Your task to perform on an android device: Open wifi settings Image 0: 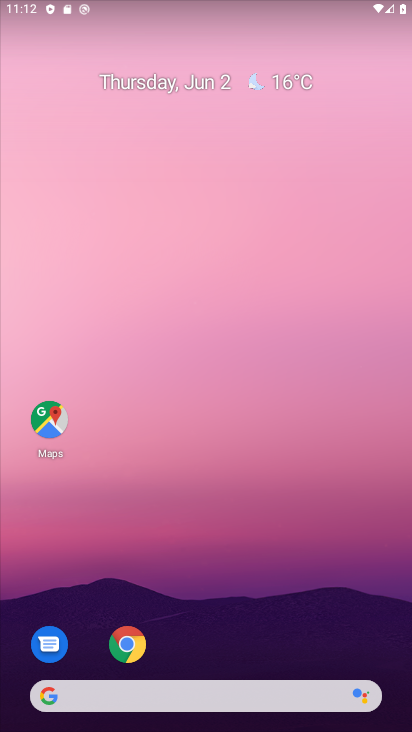
Step 0: drag from (231, 635) to (261, 77)
Your task to perform on an android device: Open wifi settings Image 1: 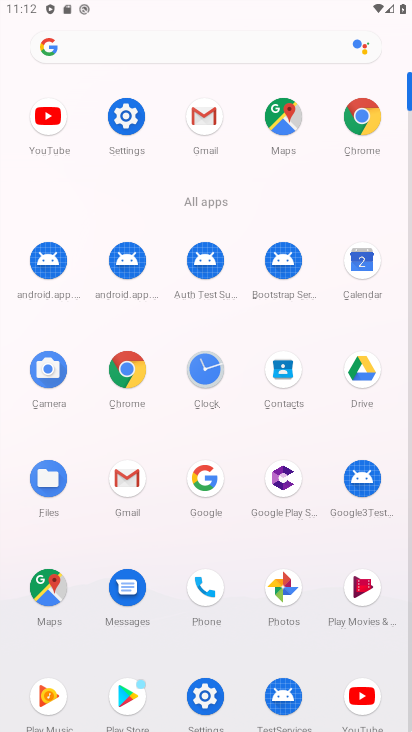
Step 1: click (128, 126)
Your task to perform on an android device: Open wifi settings Image 2: 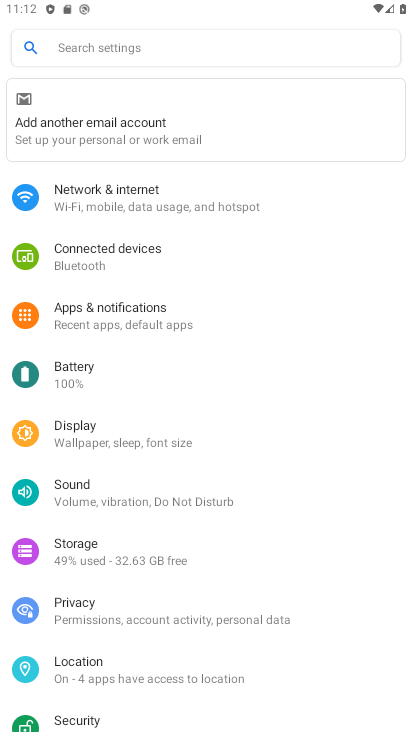
Step 2: click (126, 199)
Your task to perform on an android device: Open wifi settings Image 3: 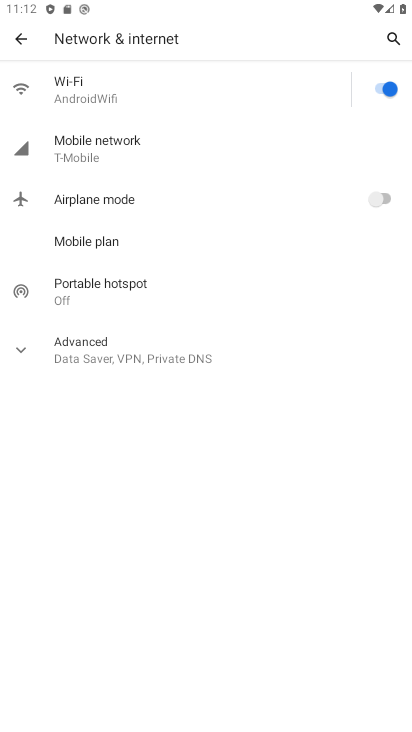
Step 3: task complete